Your task to perform on an android device: change the clock display to show seconds Image 0: 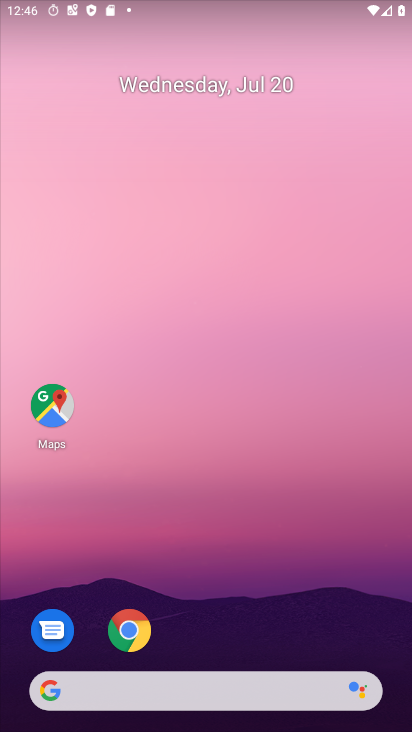
Step 0: drag from (242, 591) to (272, 12)
Your task to perform on an android device: change the clock display to show seconds Image 1: 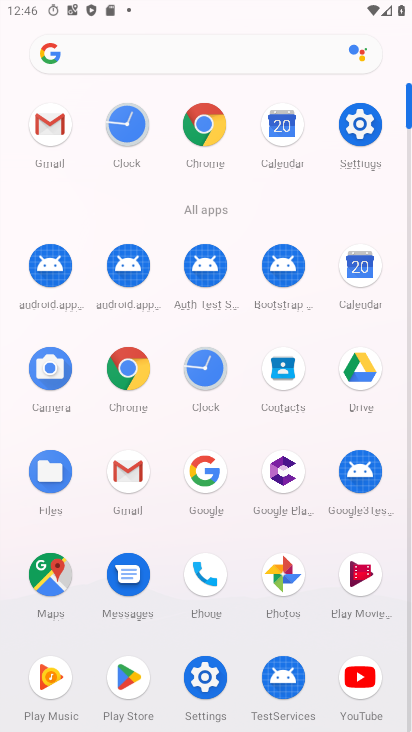
Step 1: click (220, 372)
Your task to perform on an android device: change the clock display to show seconds Image 2: 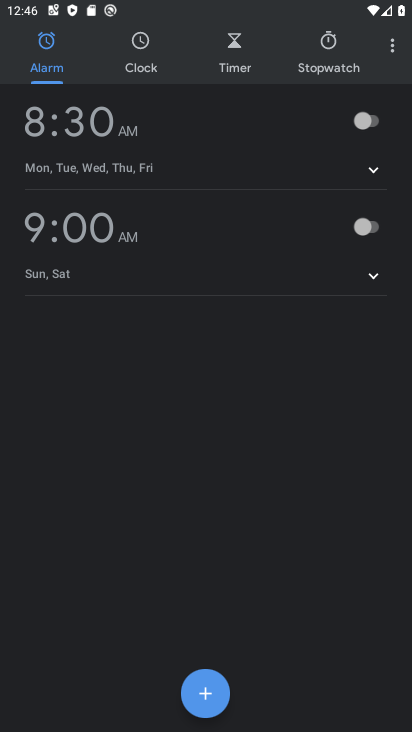
Step 2: click (382, 59)
Your task to perform on an android device: change the clock display to show seconds Image 3: 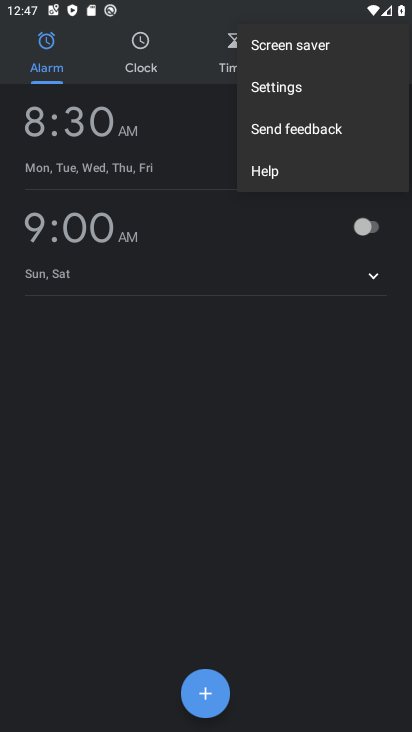
Step 3: click (306, 81)
Your task to perform on an android device: change the clock display to show seconds Image 4: 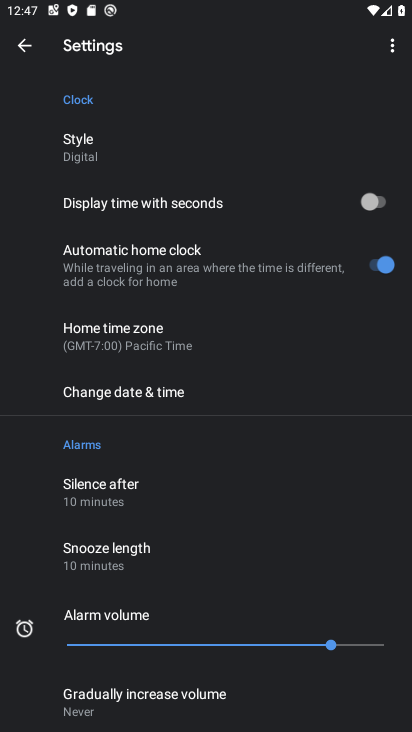
Step 4: click (389, 200)
Your task to perform on an android device: change the clock display to show seconds Image 5: 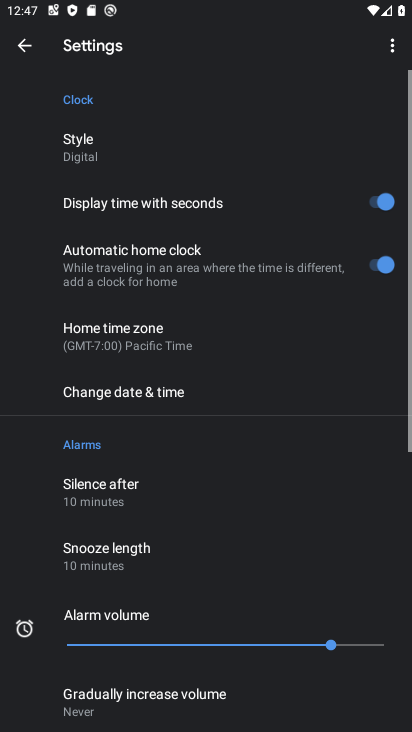
Step 5: task complete